Your task to perform on an android device: Open privacy settings Image 0: 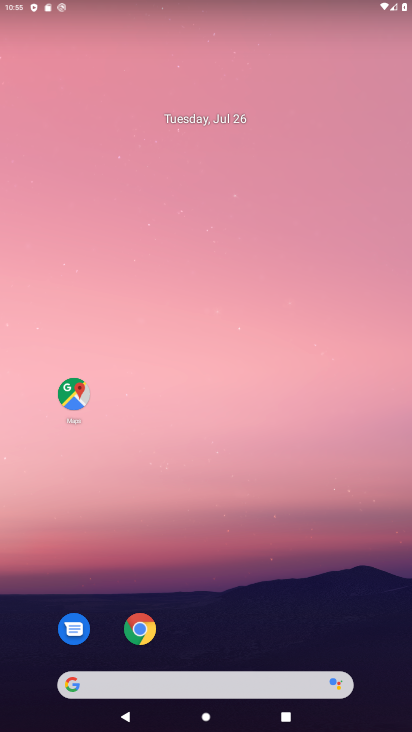
Step 0: drag from (268, 603) to (264, 121)
Your task to perform on an android device: Open privacy settings Image 1: 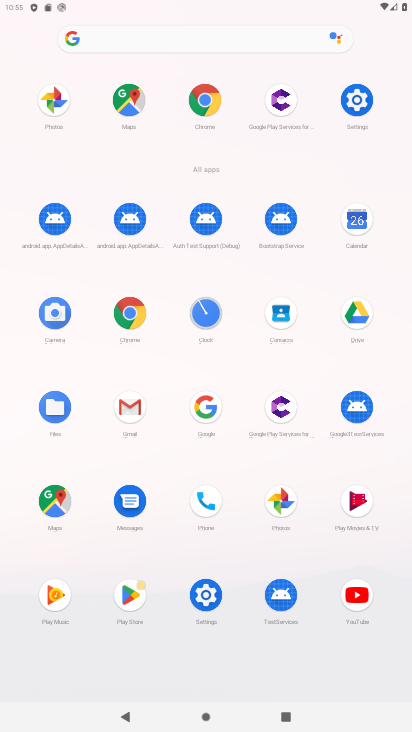
Step 1: click (190, 602)
Your task to perform on an android device: Open privacy settings Image 2: 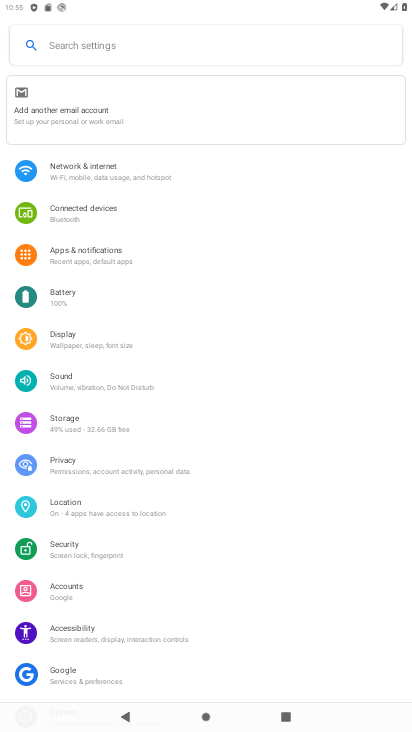
Step 2: drag from (99, 595) to (122, 305)
Your task to perform on an android device: Open privacy settings Image 3: 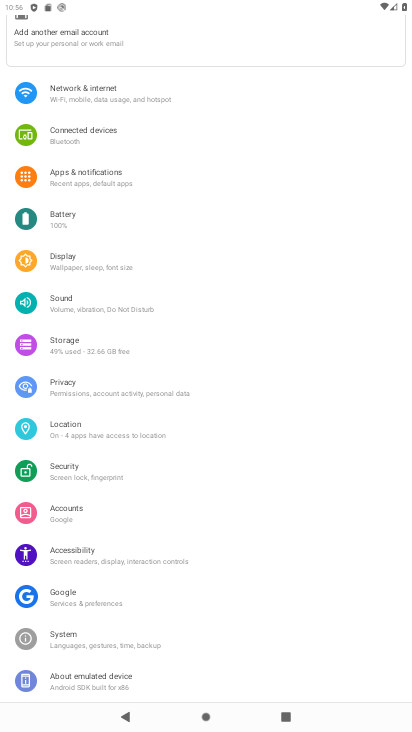
Step 3: click (53, 380)
Your task to perform on an android device: Open privacy settings Image 4: 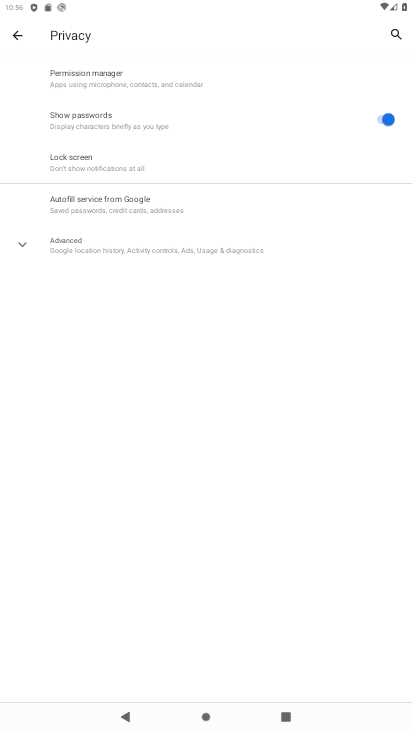
Step 4: task complete